Your task to perform on an android device: Set the phone to "Do not disturb". Image 0: 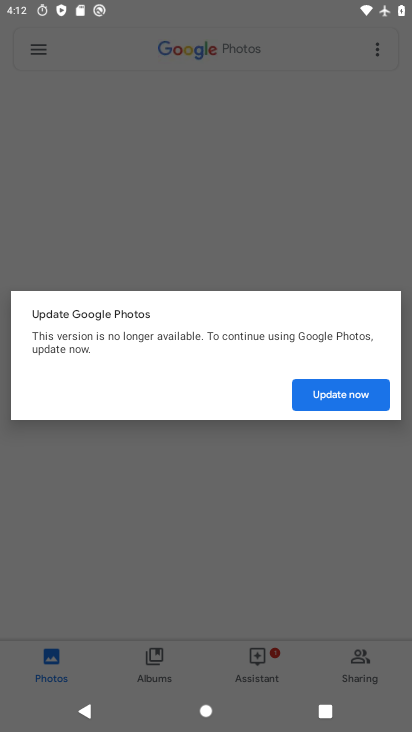
Step 0: press home button
Your task to perform on an android device: Set the phone to "Do not disturb". Image 1: 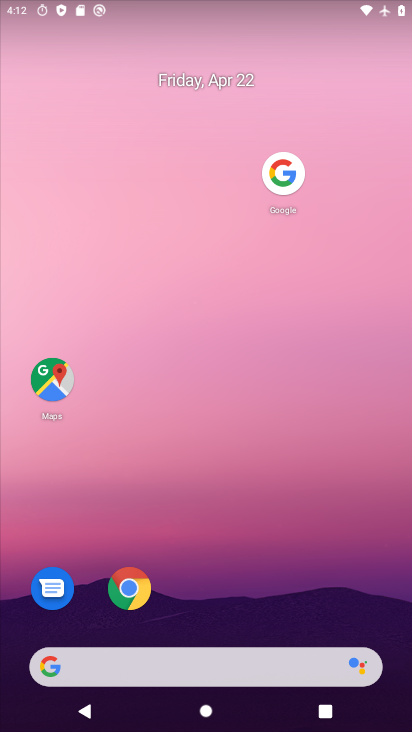
Step 1: drag from (211, 638) to (329, 16)
Your task to perform on an android device: Set the phone to "Do not disturb". Image 2: 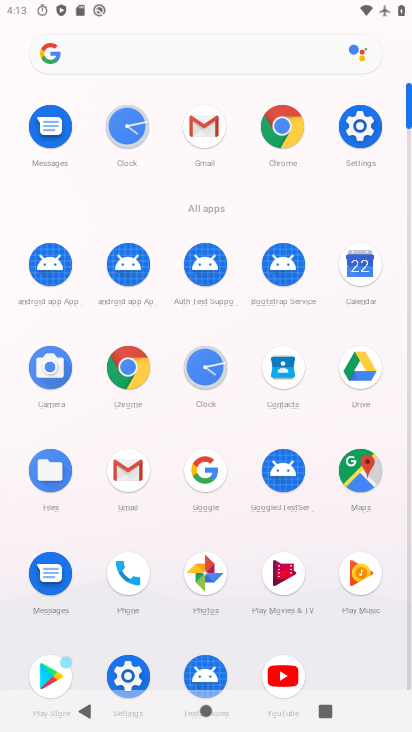
Step 2: drag from (242, 8) to (176, 633)
Your task to perform on an android device: Set the phone to "Do not disturb". Image 3: 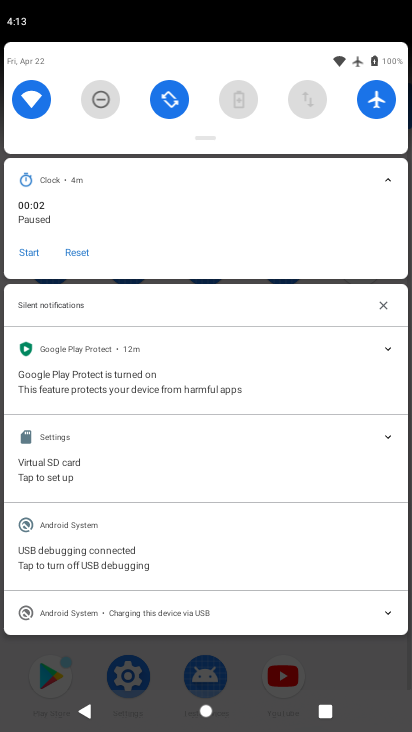
Step 3: click (106, 94)
Your task to perform on an android device: Set the phone to "Do not disturb". Image 4: 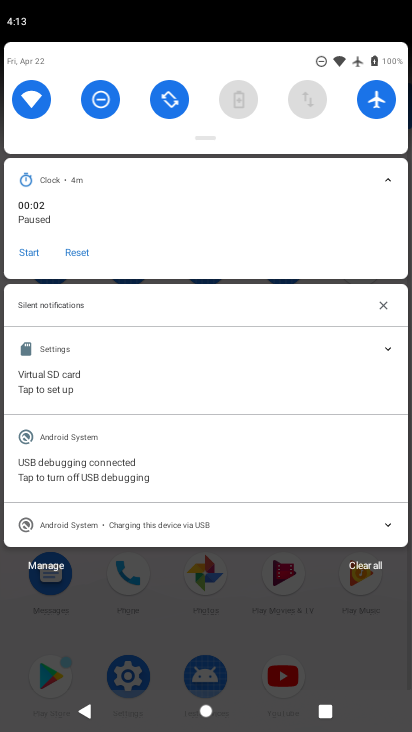
Step 4: task complete